Your task to perform on an android device: change the clock display to digital Image 0: 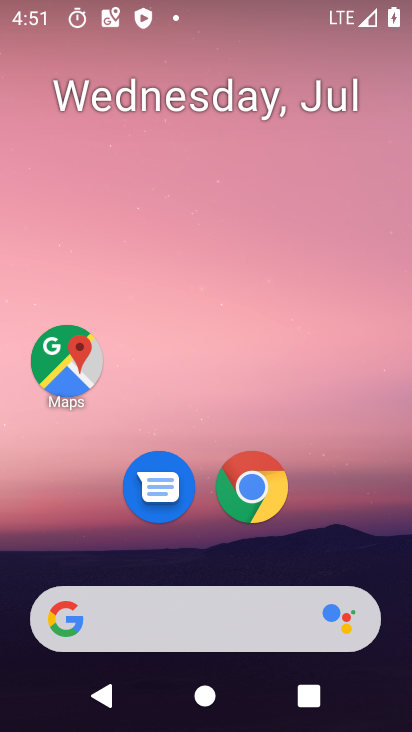
Step 0: drag from (178, 514) to (281, 7)
Your task to perform on an android device: change the clock display to digital Image 1: 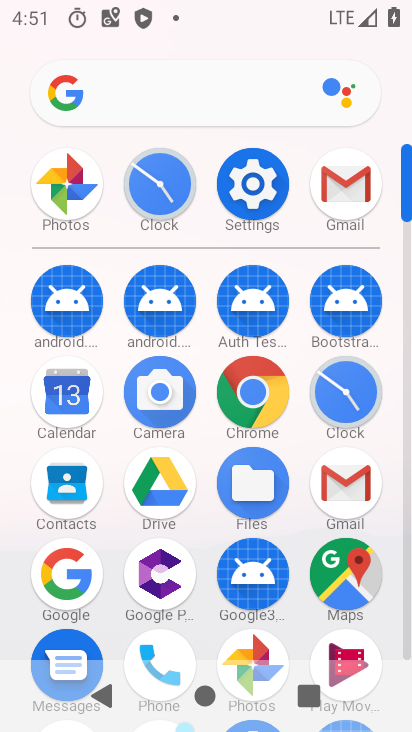
Step 1: click (156, 188)
Your task to perform on an android device: change the clock display to digital Image 2: 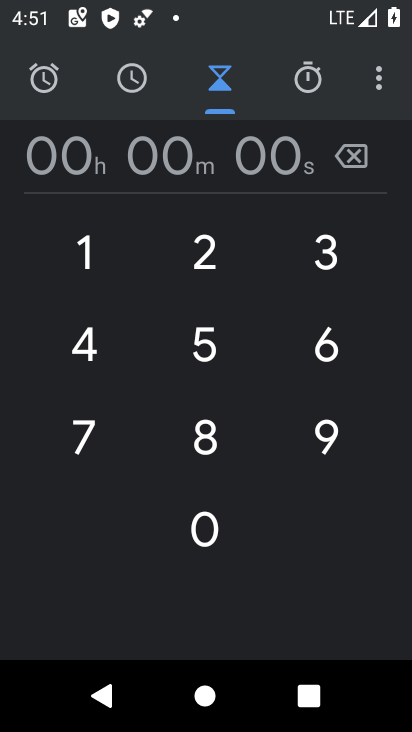
Step 2: click (382, 72)
Your task to perform on an android device: change the clock display to digital Image 3: 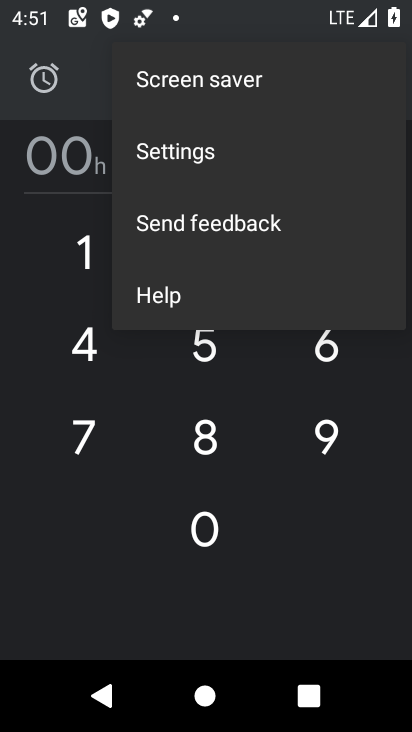
Step 3: click (204, 140)
Your task to perform on an android device: change the clock display to digital Image 4: 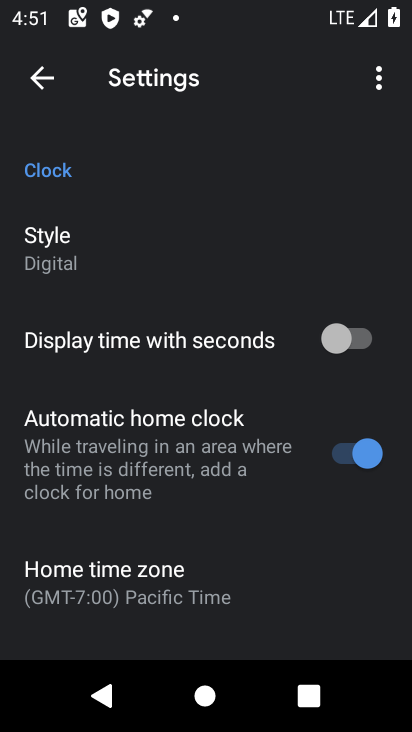
Step 4: click (57, 258)
Your task to perform on an android device: change the clock display to digital Image 5: 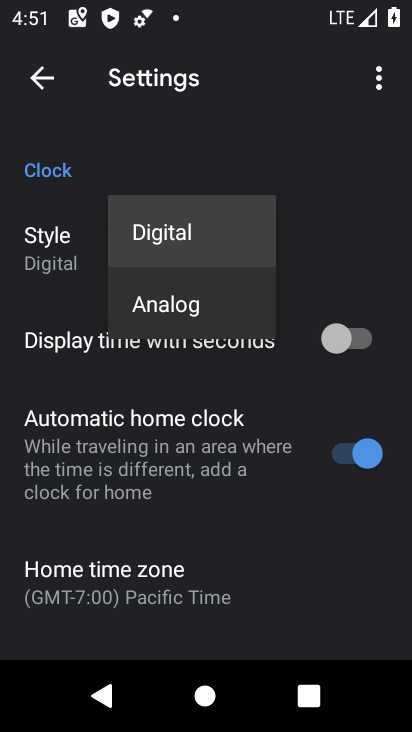
Step 5: click (191, 248)
Your task to perform on an android device: change the clock display to digital Image 6: 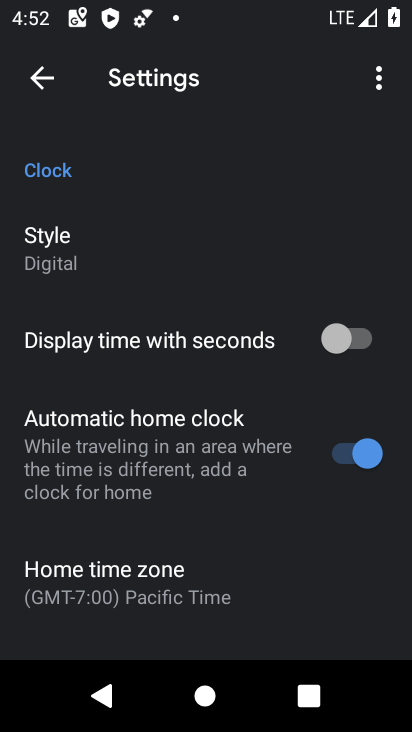
Step 6: task complete